Your task to perform on an android device: When is my next appointment? Image 0: 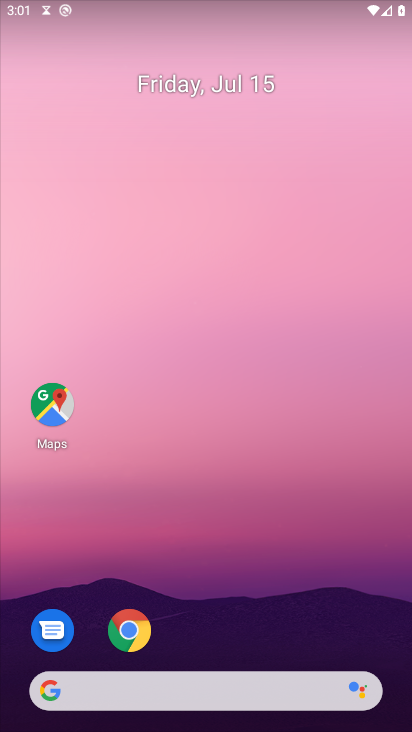
Step 0: press home button
Your task to perform on an android device: When is my next appointment? Image 1: 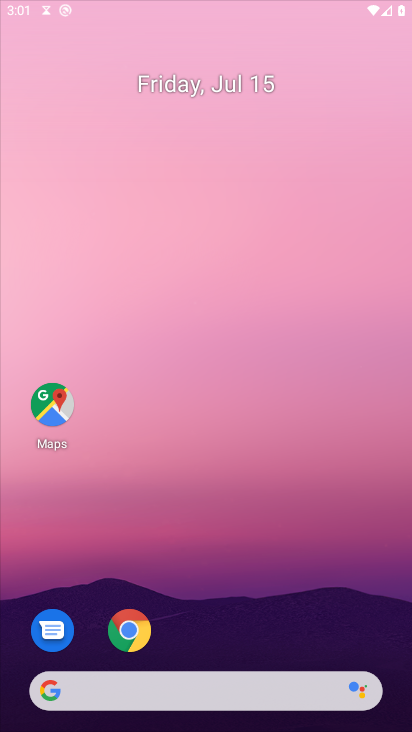
Step 1: drag from (272, 641) to (290, 0)
Your task to perform on an android device: When is my next appointment? Image 2: 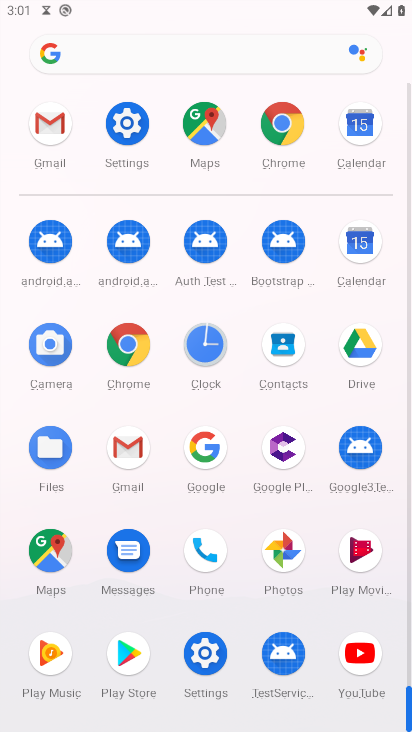
Step 2: click (370, 242)
Your task to perform on an android device: When is my next appointment? Image 3: 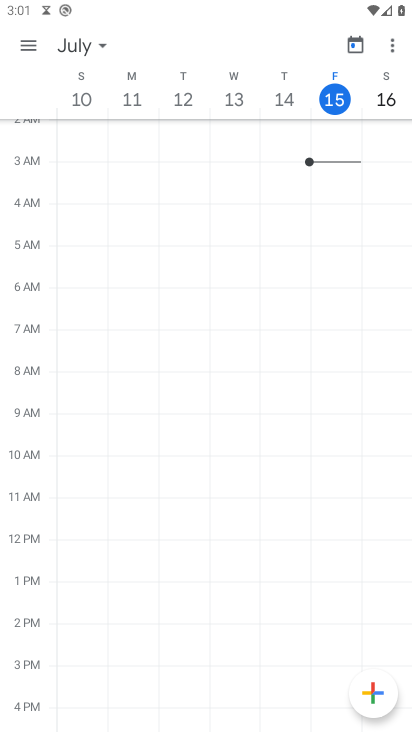
Step 3: click (27, 45)
Your task to perform on an android device: When is my next appointment? Image 4: 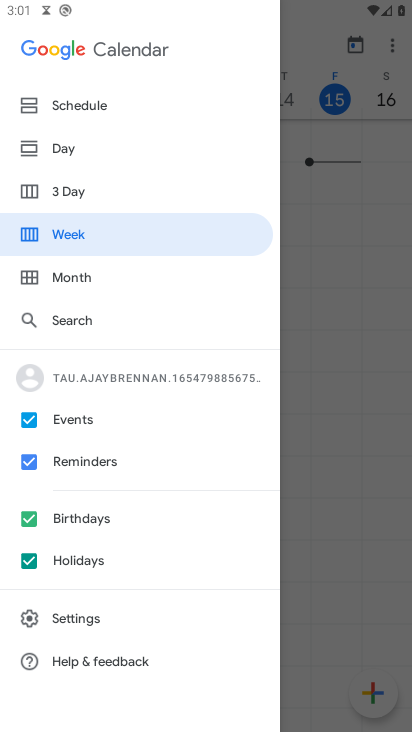
Step 4: click (64, 110)
Your task to perform on an android device: When is my next appointment? Image 5: 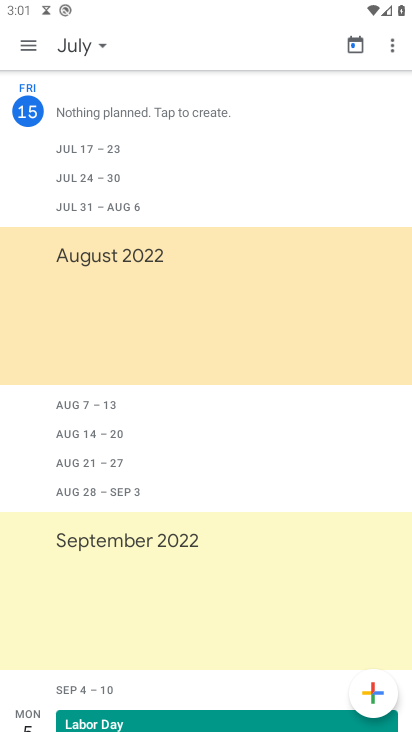
Step 5: task complete